Your task to perform on an android device: star an email in the gmail app Image 0: 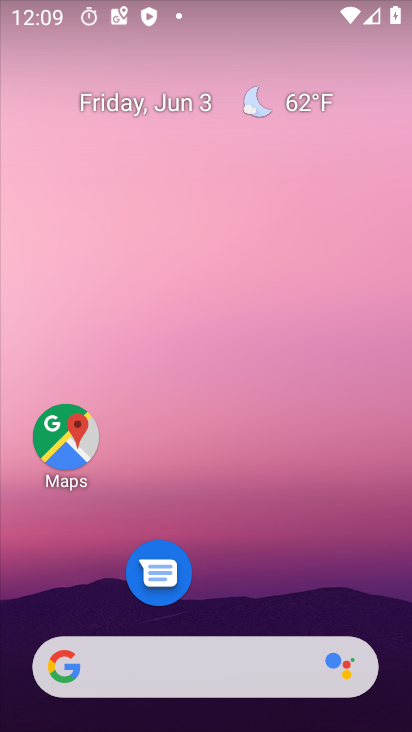
Step 0: drag from (298, 643) to (252, 25)
Your task to perform on an android device: star an email in the gmail app Image 1: 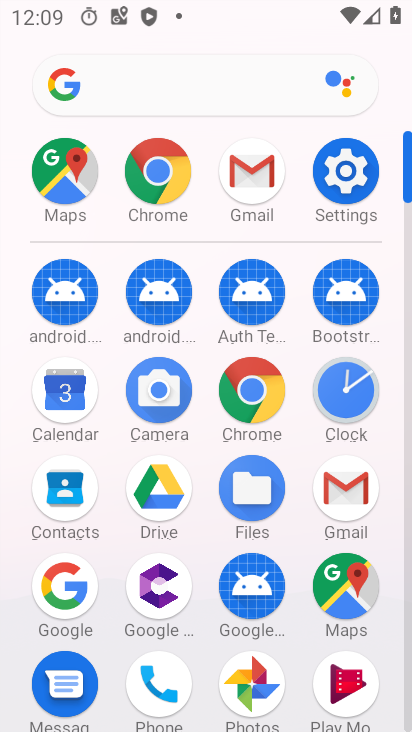
Step 1: click (347, 485)
Your task to perform on an android device: star an email in the gmail app Image 2: 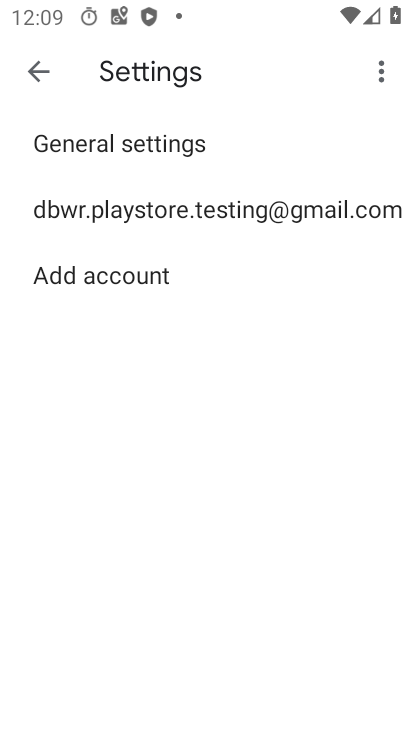
Step 2: press back button
Your task to perform on an android device: star an email in the gmail app Image 3: 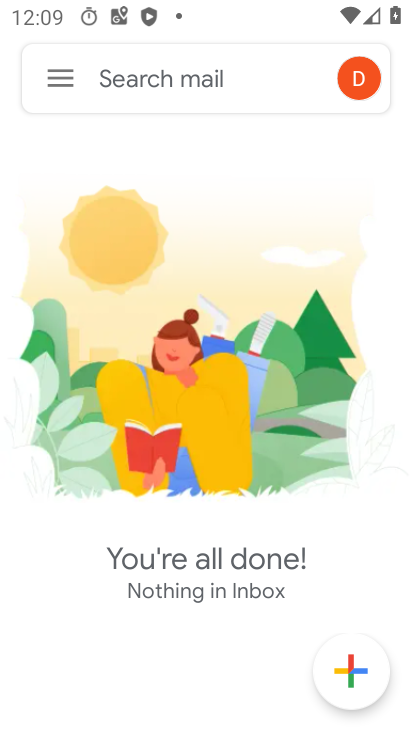
Step 3: click (51, 76)
Your task to perform on an android device: star an email in the gmail app Image 4: 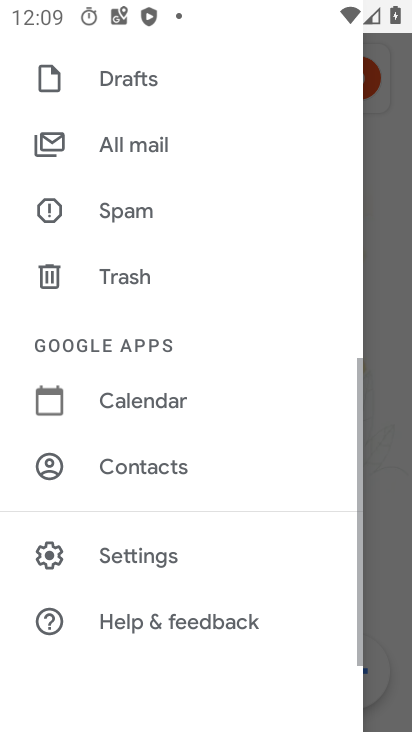
Step 4: drag from (195, 190) to (218, 694)
Your task to perform on an android device: star an email in the gmail app Image 5: 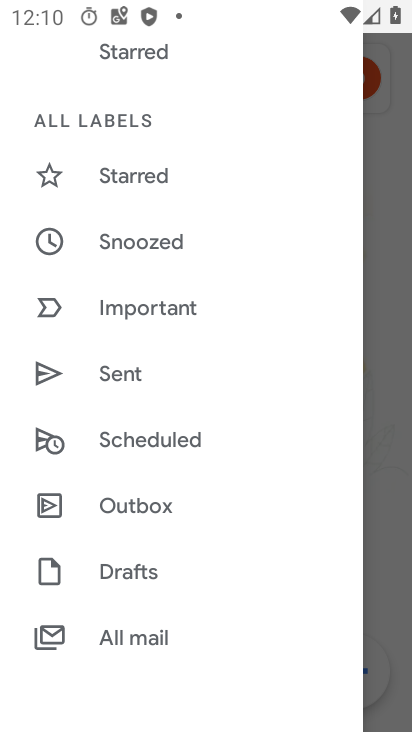
Step 5: click (146, 194)
Your task to perform on an android device: star an email in the gmail app Image 6: 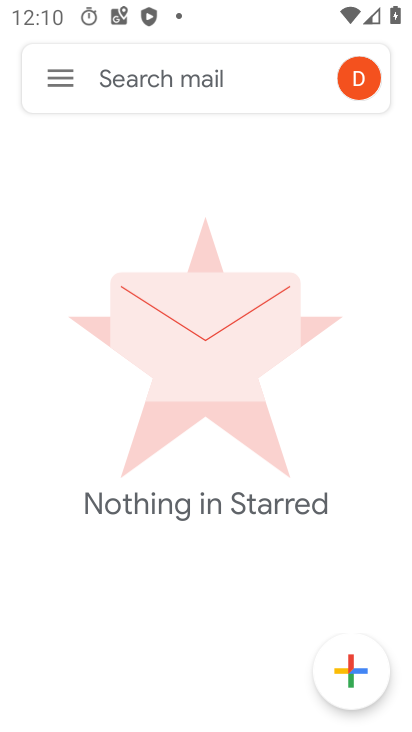
Step 6: task complete